Your task to perform on an android device: Turn on the flashlight Image 0: 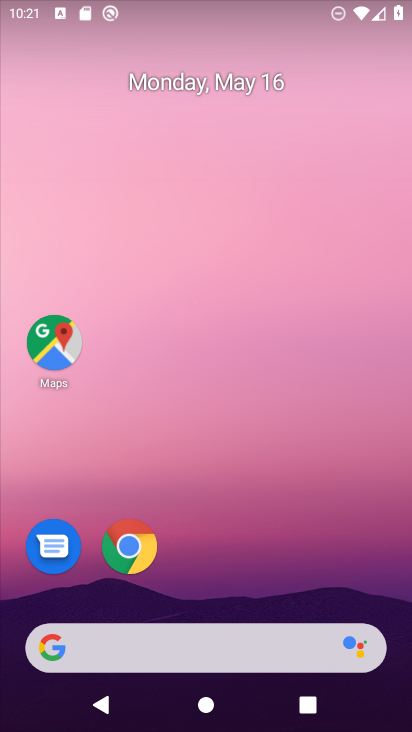
Step 0: drag from (215, 618) to (319, 235)
Your task to perform on an android device: Turn on the flashlight Image 1: 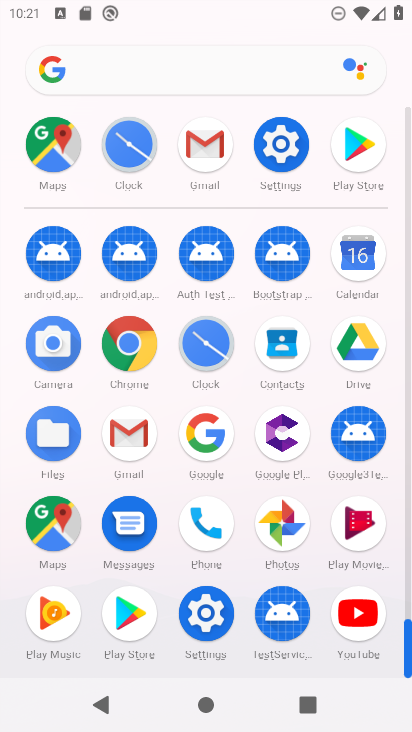
Step 1: click (278, 133)
Your task to perform on an android device: Turn on the flashlight Image 2: 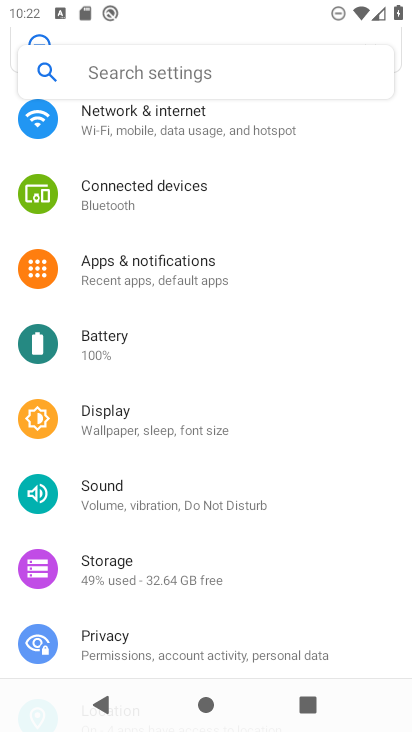
Step 2: task complete